Your task to perform on an android device: Go to Android settings Image 0: 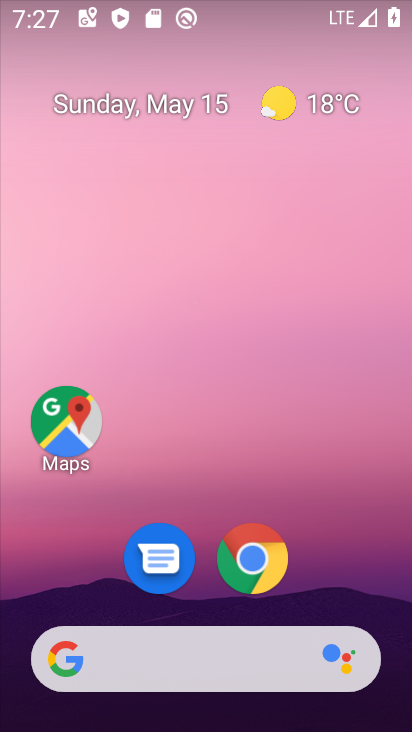
Step 0: drag from (332, 575) to (206, 110)
Your task to perform on an android device: Go to Android settings Image 1: 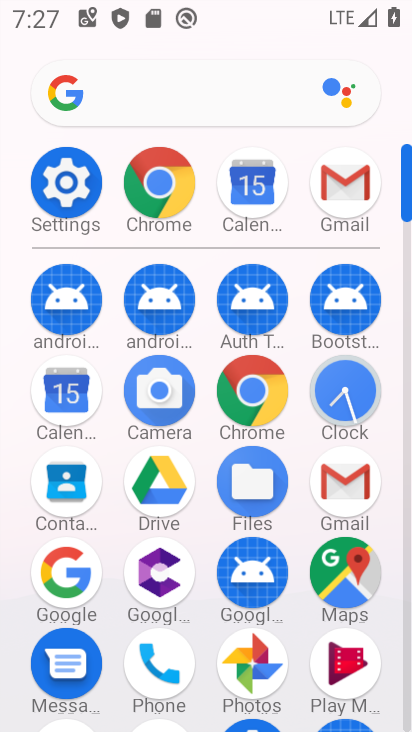
Step 1: click (68, 177)
Your task to perform on an android device: Go to Android settings Image 2: 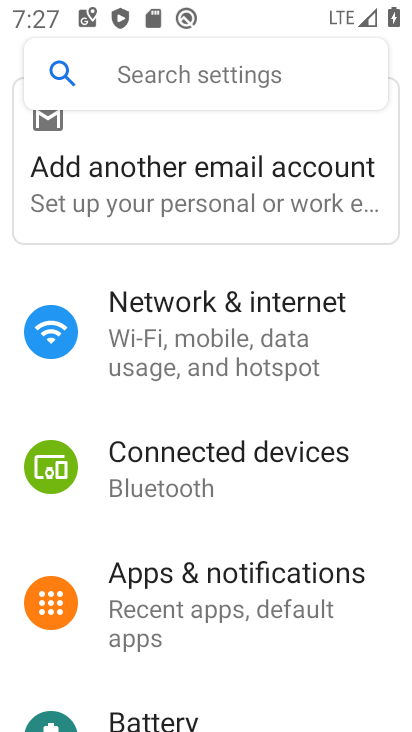
Step 2: task complete